Your task to perform on an android device: open app "Truecaller" (install if not already installed) Image 0: 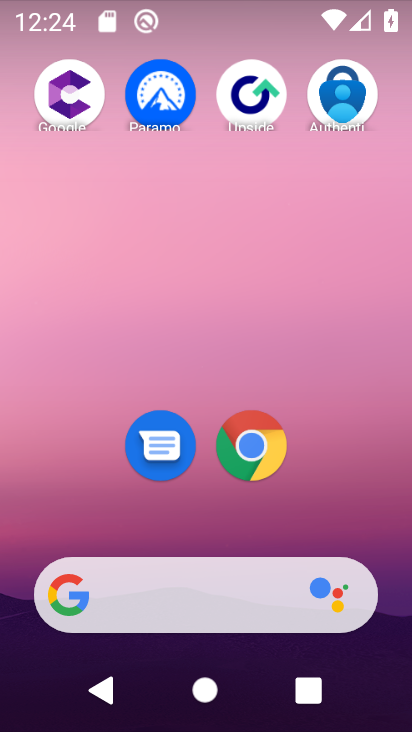
Step 0: press home button
Your task to perform on an android device: open app "Truecaller" (install if not already installed) Image 1: 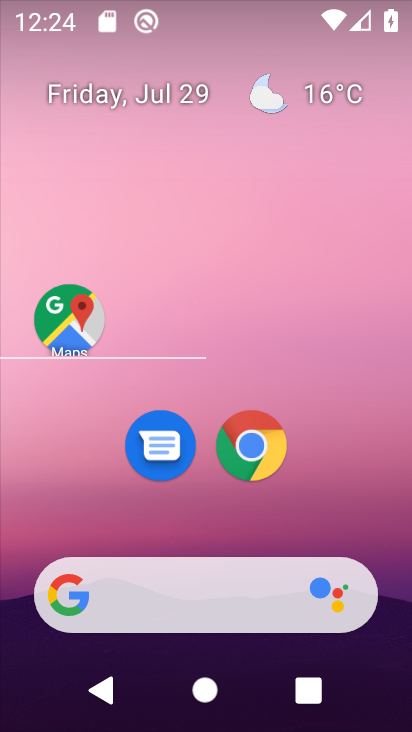
Step 1: drag from (219, 584) to (207, 139)
Your task to perform on an android device: open app "Truecaller" (install if not already installed) Image 2: 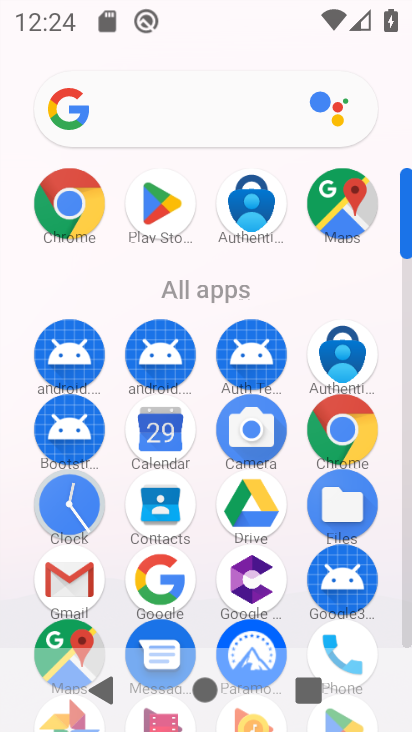
Step 2: click (162, 186)
Your task to perform on an android device: open app "Truecaller" (install if not already installed) Image 3: 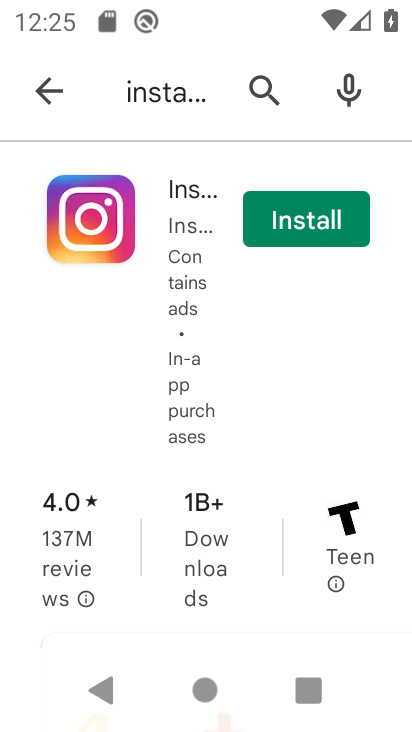
Step 3: click (259, 82)
Your task to perform on an android device: open app "Truecaller" (install if not already installed) Image 4: 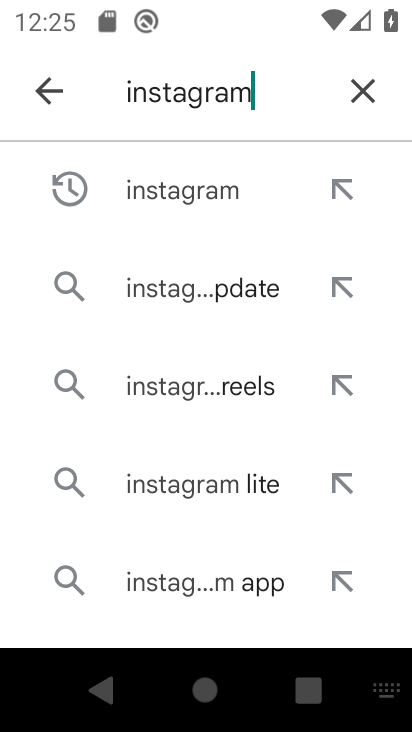
Step 4: click (370, 88)
Your task to perform on an android device: open app "Truecaller" (install if not already installed) Image 5: 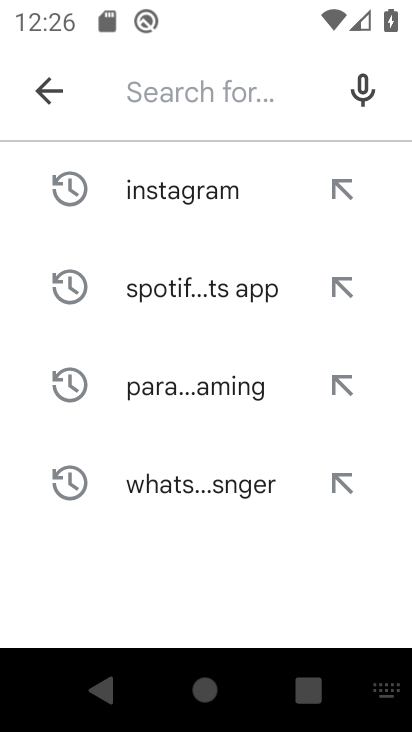
Step 5: type "Truecaller"
Your task to perform on an android device: open app "Truecaller" (install if not already installed) Image 6: 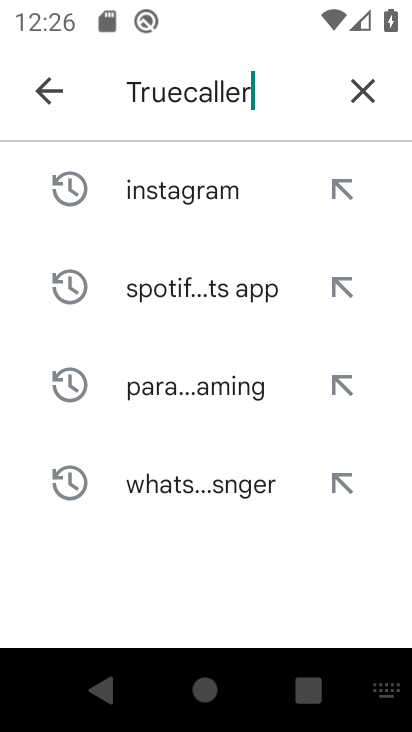
Step 6: type ""
Your task to perform on an android device: open app "Truecaller" (install if not already installed) Image 7: 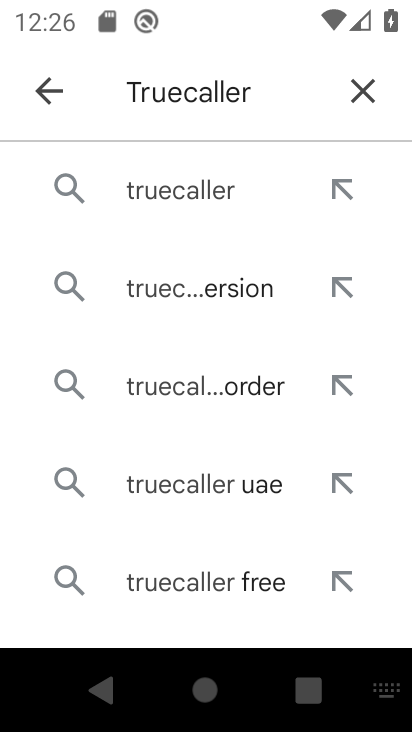
Step 7: click (159, 205)
Your task to perform on an android device: open app "Truecaller" (install if not already installed) Image 8: 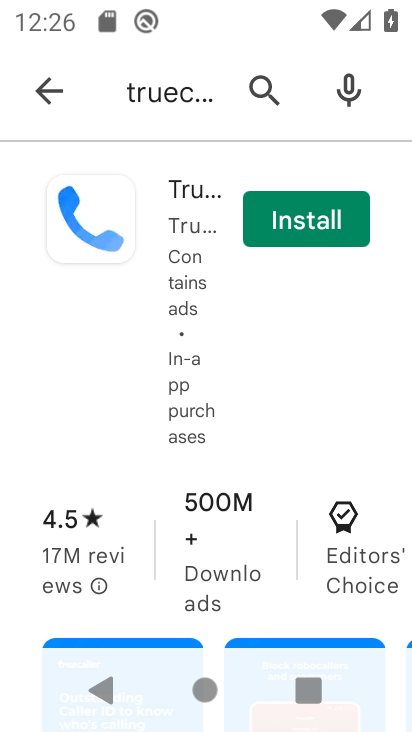
Step 8: click (343, 209)
Your task to perform on an android device: open app "Truecaller" (install if not already installed) Image 9: 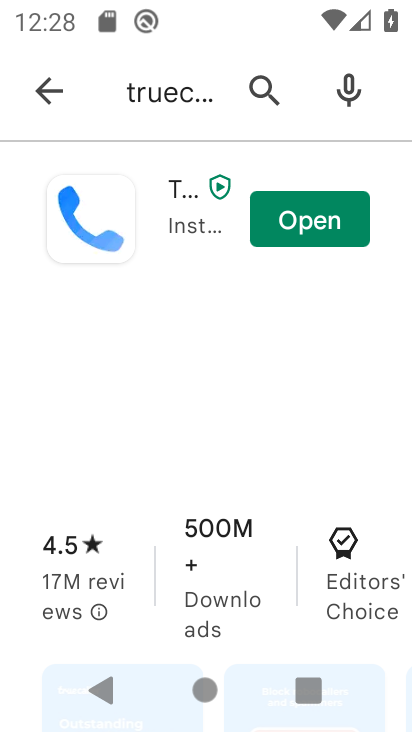
Step 9: click (293, 221)
Your task to perform on an android device: open app "Truecaller" (install if not already installed) Image 10: 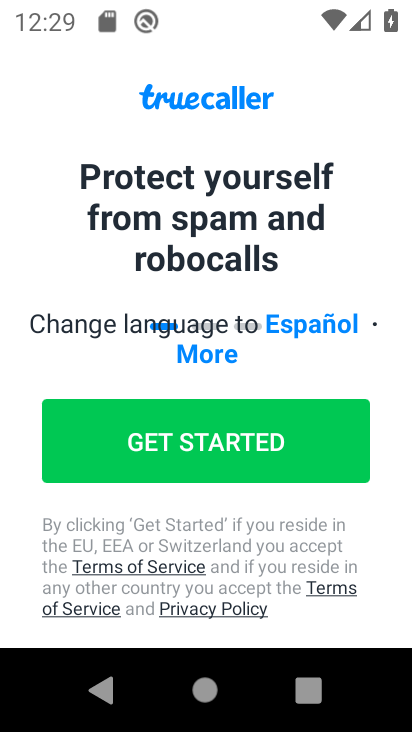
Step 10: task complete